Your task to perform on an android device: Go to location settings Image 0: 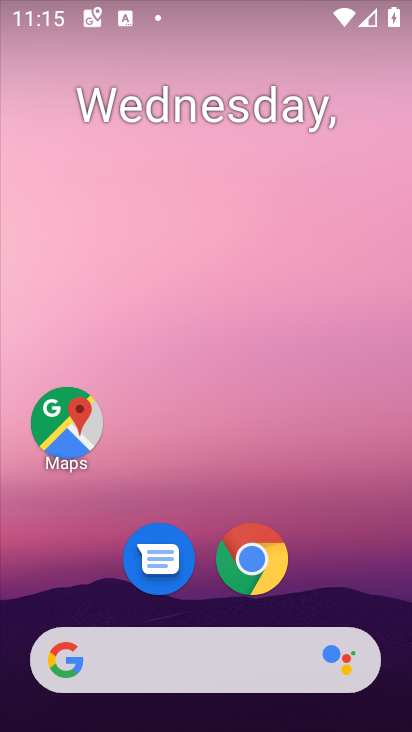
Step 0: drag from (222, 621) to (208, 188)
Your task to perform on an android device: Go to location settings Image 1: 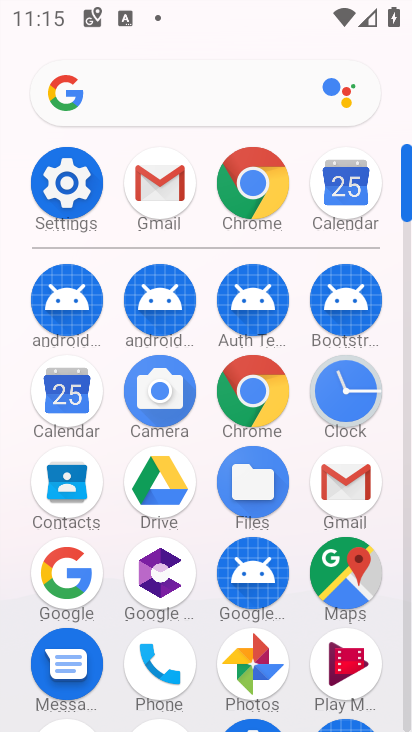
Step 1: click (80, 196)
Your task to perform on an android device: Go to location settings Image 2: 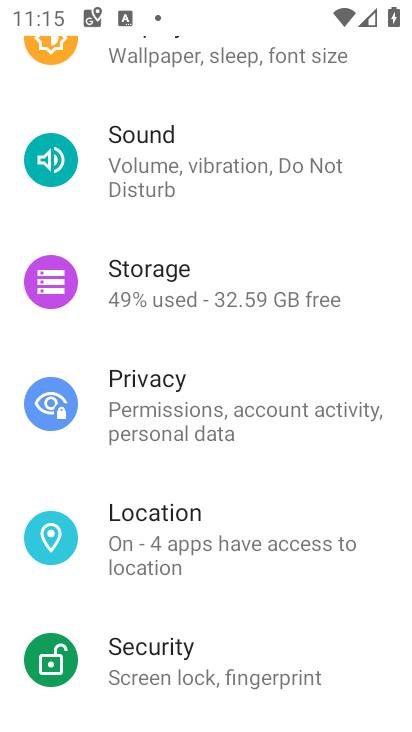
Step 2: click (191, 544)
Your task to perform on an android device: Go to location settings Image 3: 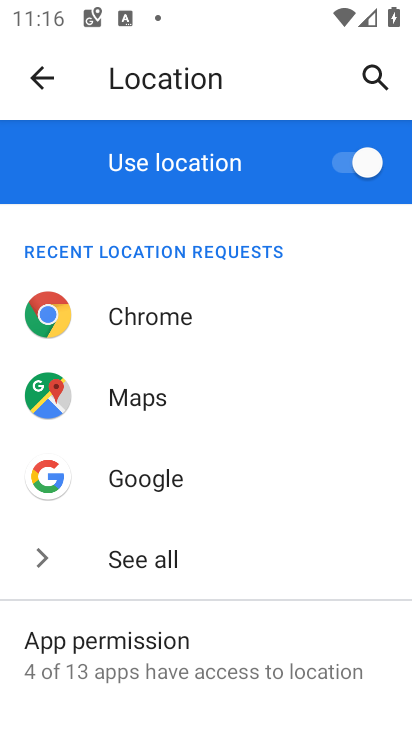
Step 3: task complete